Your task to perform on an android device: turn off wifi Image 0: 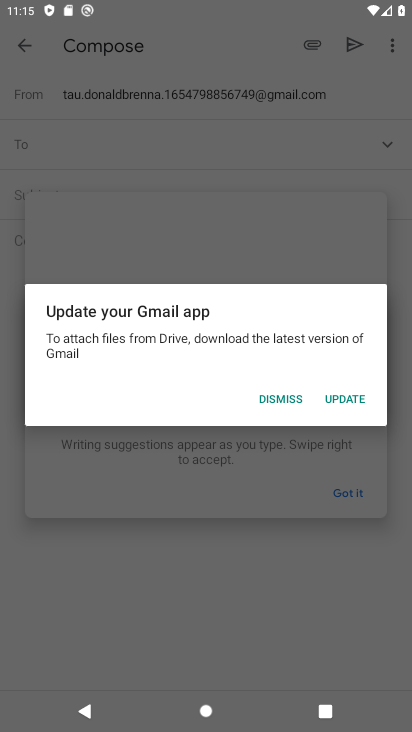
Step 0: press home button
Your task to perform on an android device: turn off wifi Image 1: 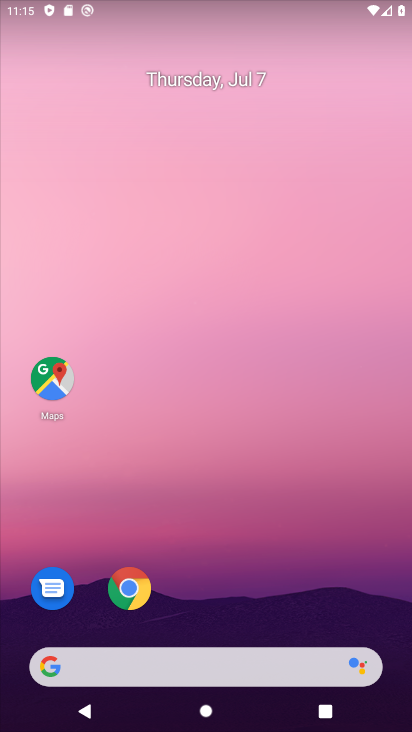
Step 1: drag from (311, 544) to (263, 27)
Your task to perform on an android device: turn off wifi Image 2: 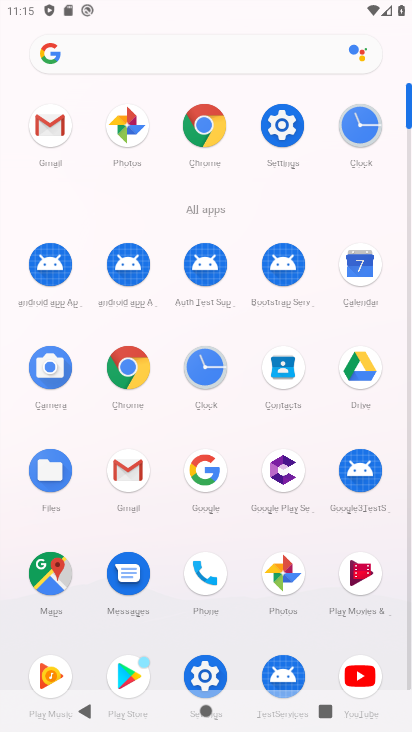
Step 2: click (282, 130)
Your task to perform on an android device: turn off wifi Image 3: 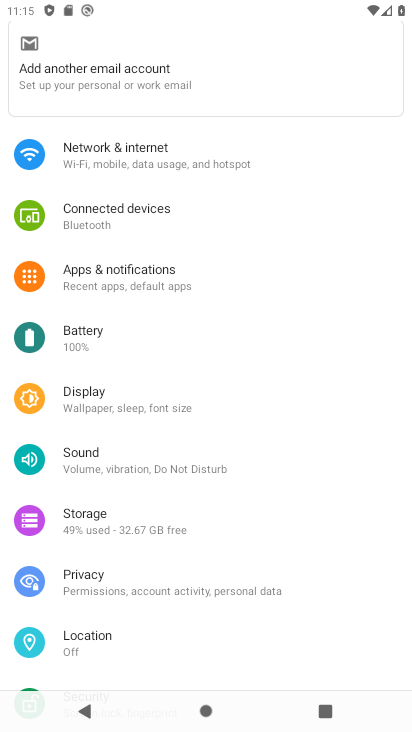
Step 3: click (165, 164)
Your task to perform on an android device: turn off wifi Image 4: 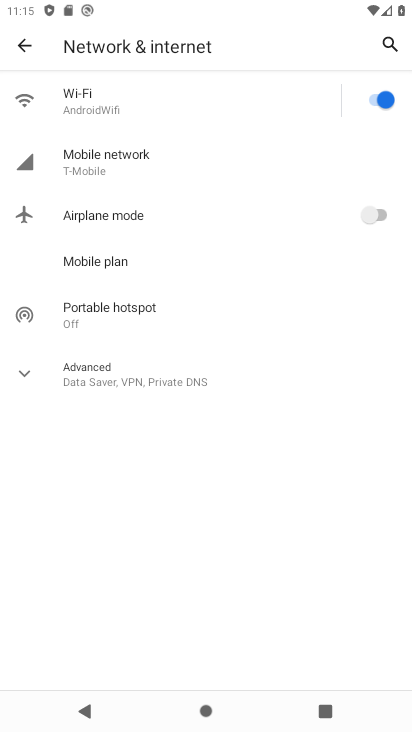
Step 4: click (374, 110)
Your task to perform on an android device: turn off wifi Image 5: 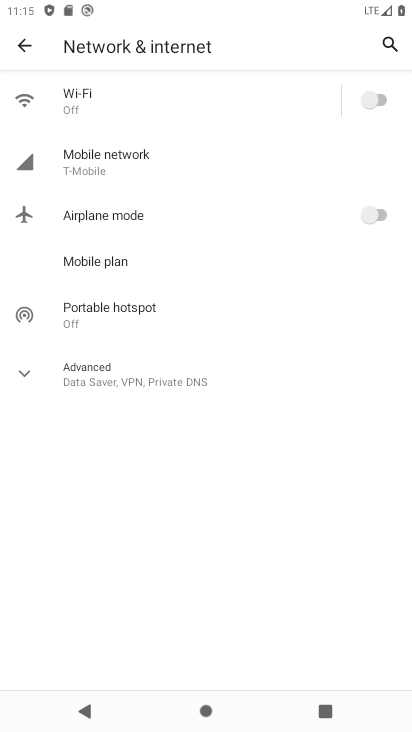
Step 5: task complete